Your task to perform on an android device: change notification settings in the gmail app Image 0: 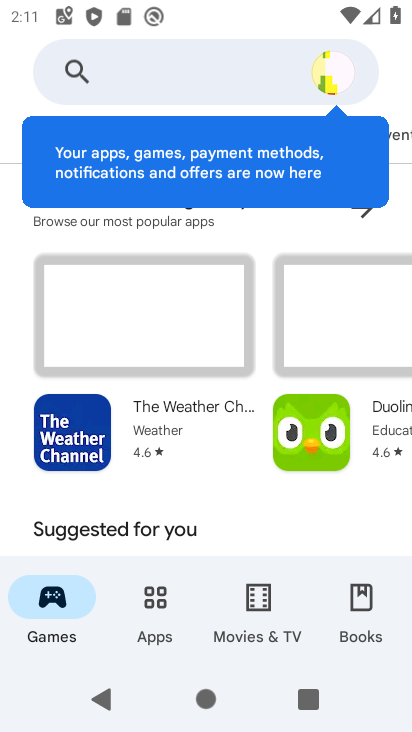
Step 0: press home button
Your task to perform on an android device: change notification settings in the gmail app Image 1: 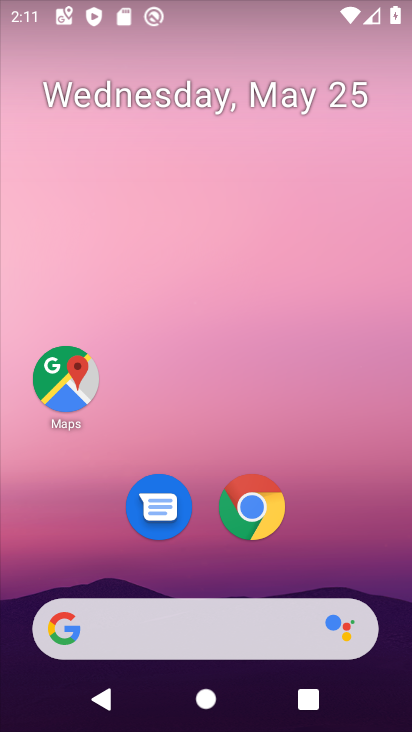
Step 1: drag from (244, 618) to (287, 174)
Your task to perform on an android device: change notification settings in the gmail app Image 2: 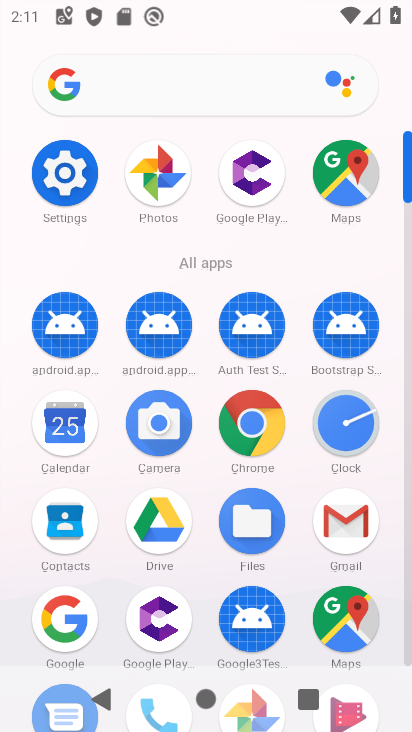
Step 2: drag from (241, 501) to (255, 269)
Your task to perform on an android device: change notification settings in the gmail app Image 3: 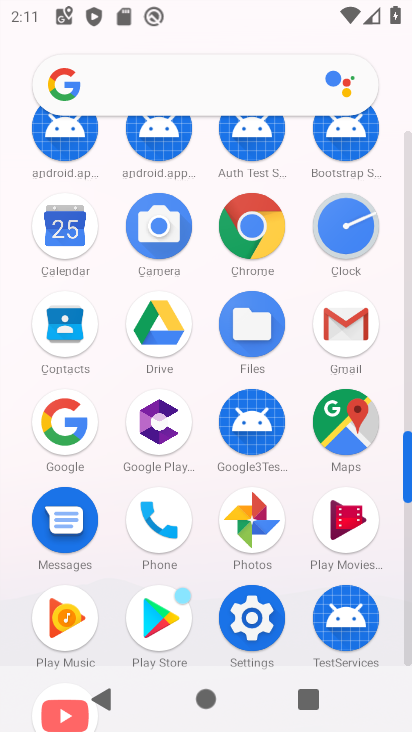
Step 3: drag from (213, 433) to (227, 275)
Your task to perform on an android device: change notification settings in the gmail app Image 4: 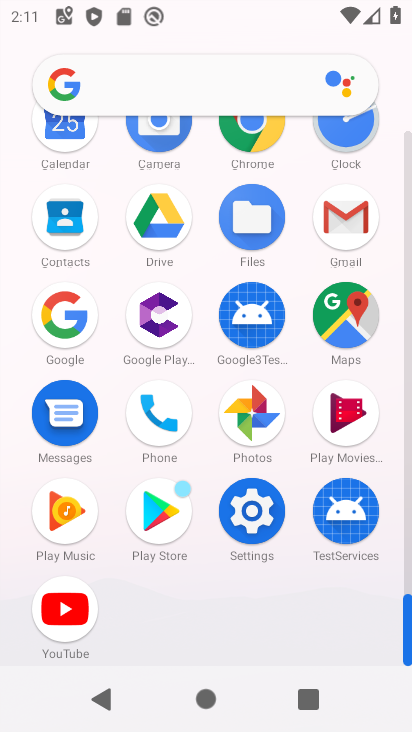
Step 4: click (361, 225)
Your task to perform on an android device: change notification settings in the gmail app Image 5: 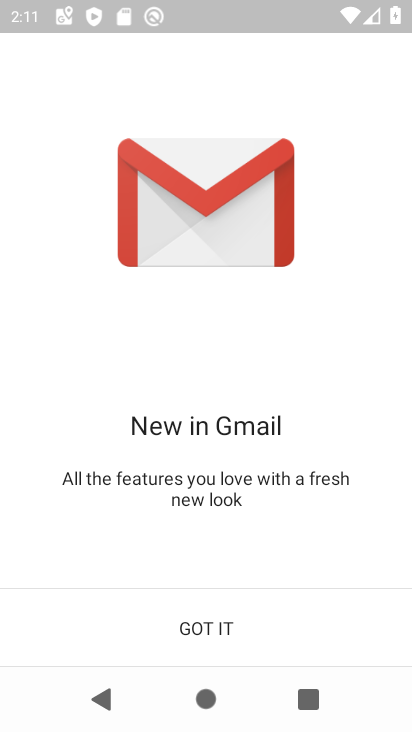
Step 5: click (220, 629)
Your task to perform on an android device: change notification settings in the gmail app Image 6: 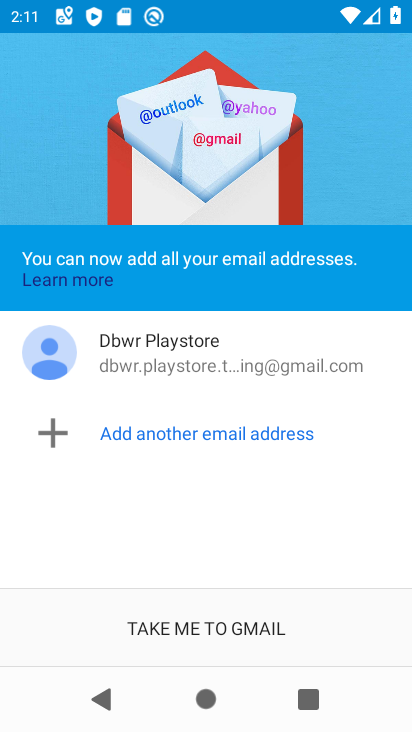
Step 6: click (220, 629)
Your task to perform on an android device: change notification settings in the gmail app Image 7: 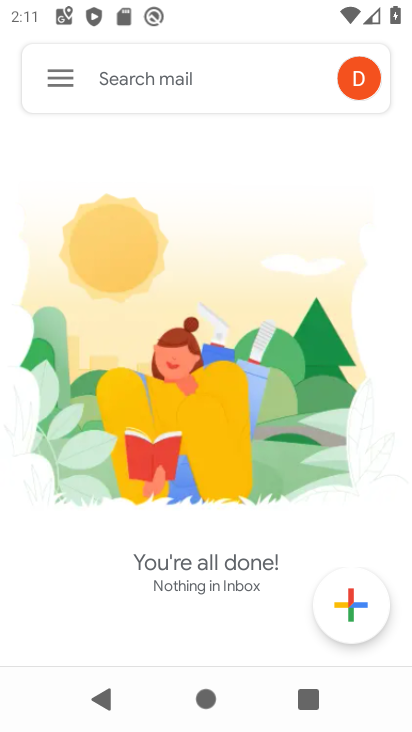
Step 7: click (60, 84)
Your task to perform on an android device: change notification settings in the gmail app Image 8: 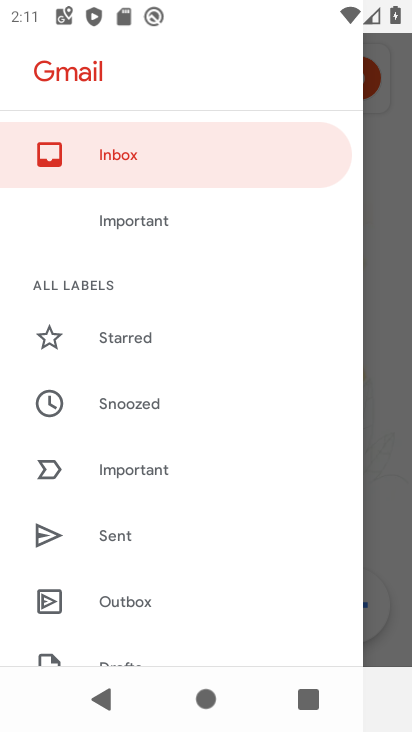
Step 8: drag from (122, 533) to (179, 162)
Your task to perform on an android device: change notification settings in the gmail app Image 9: 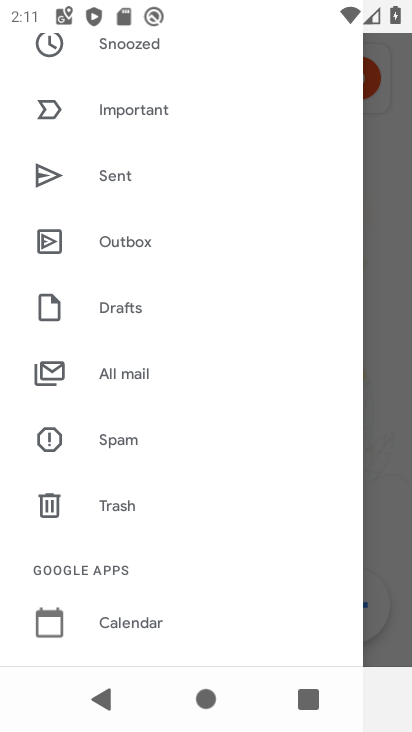
Step 9: drag from (141, 560) to (194, 266)
Your task to perform on an android device: change notification settings in the gmail app Image 10: 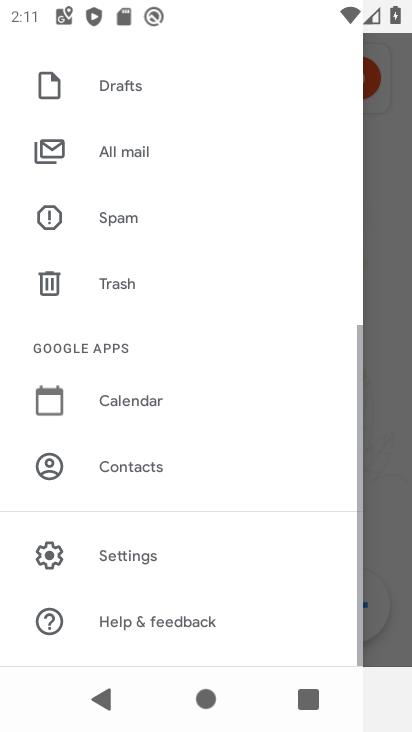
Step 10: drag from (148, 553) to (192, 323)
Your task to perform on an android device: change notification settings in the gmail app Image 11: 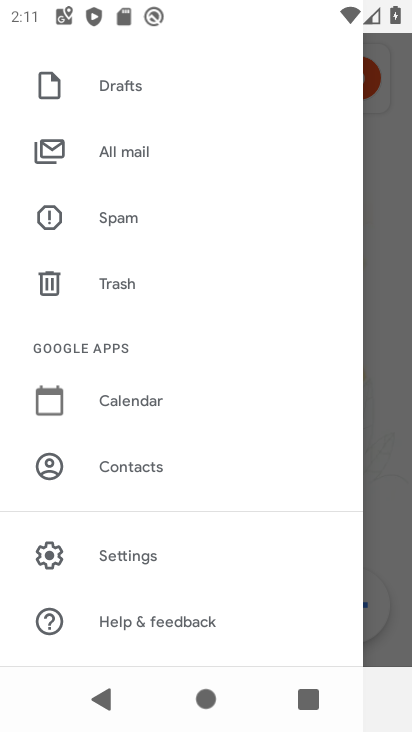
Step 11: click (123, 564)
Your task to perform on an android device: change notification settings in the gmail app Image 12: 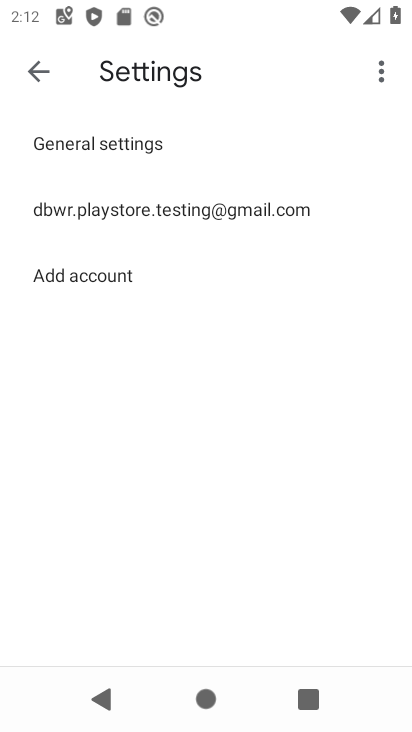
Step 12: click (220, 150)
Your task to perform on an android device: change notification settings in the gmail app Image 13: 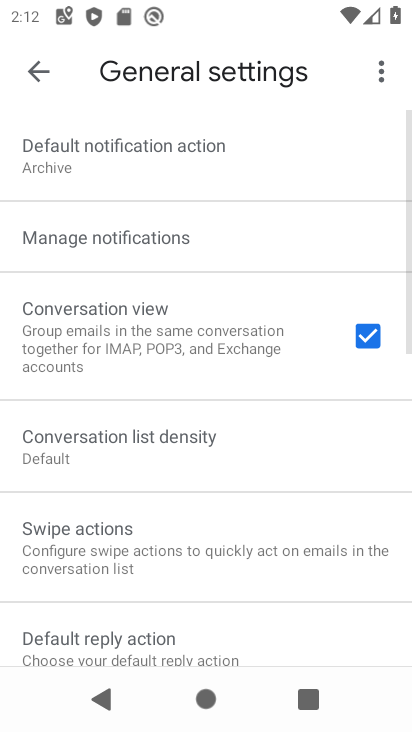
Step 13: click (200, 243)
Your task to perform on an android device: change notification settings in the gmail app Image 14: 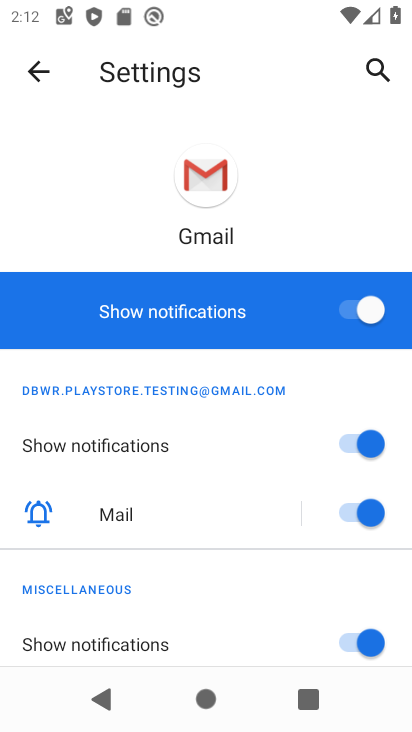
Step 14: click (318, 314)
Your task to perform on an android device: change notification settings in the gmail app Image 15: 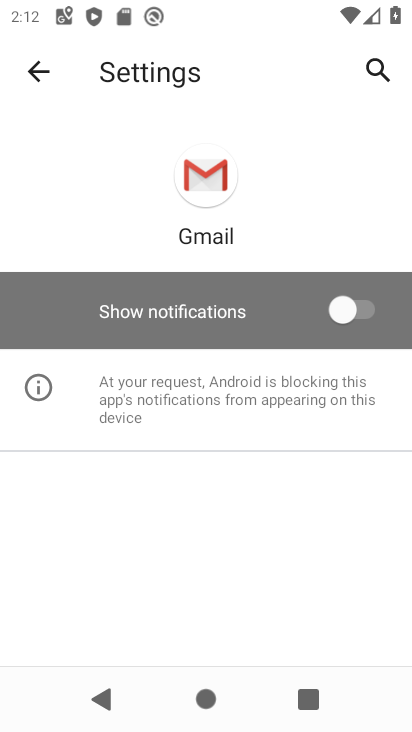
Step 15: task complete